Your task to perform on an android device: Search for vegetarian restaurants on Maps Image 0: 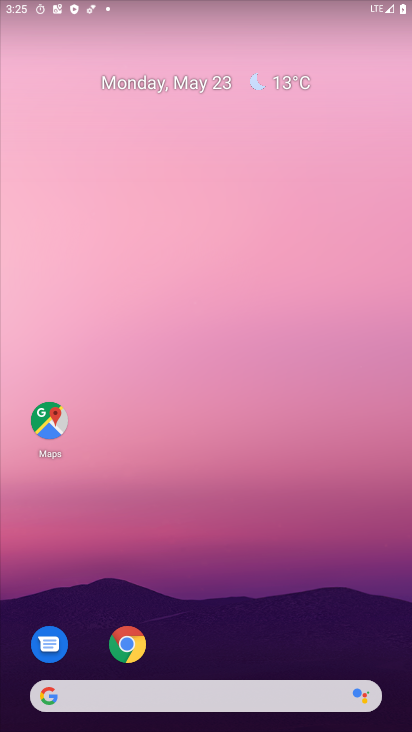
Step 0: drag from (210, 671) to (192, 96)
Your task to perform on an android device: Search for vegetarian restaurants on Maps Image 1: 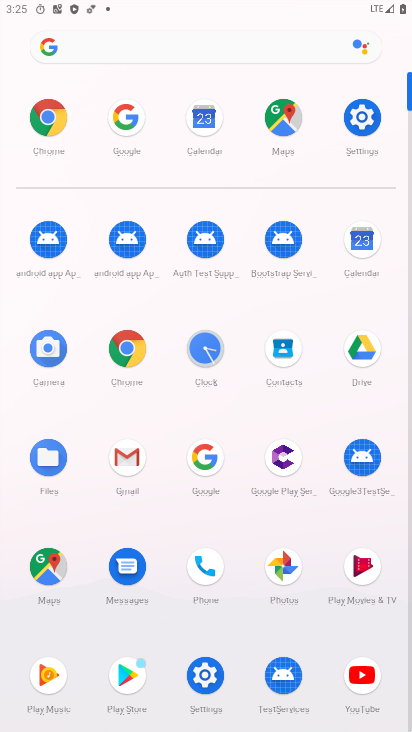
Step 1: click (61, 564)
Your task to perform on an android device: Search for vegetarian restaurants on Maps Image 2: 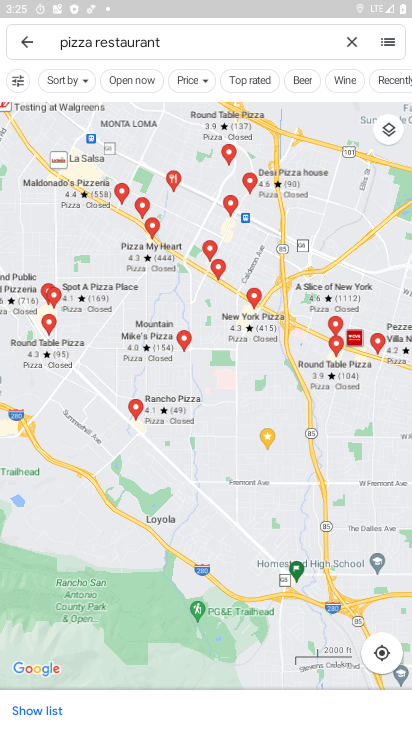
Step 2: click (353, 43)
Your task to perform on an android device: Search for vegetarian restaurants on Maps Image 3: 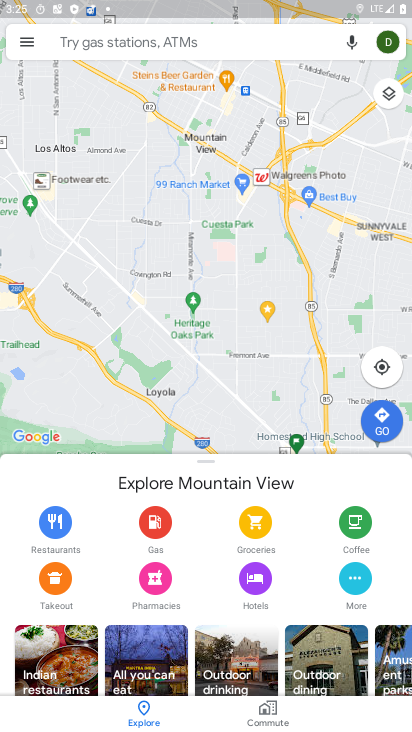
Step 3: click (231, 40)
Your task to perform on an android device: Search for vegetarian restaurants on Maps Image 4: 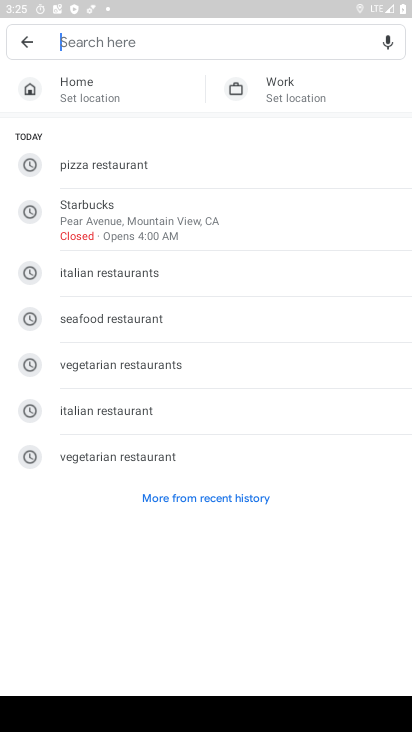
Step 4: click (139, 358)
Your task to perform on an android device: Search for vegetarian restaurants on Maps Image 5: 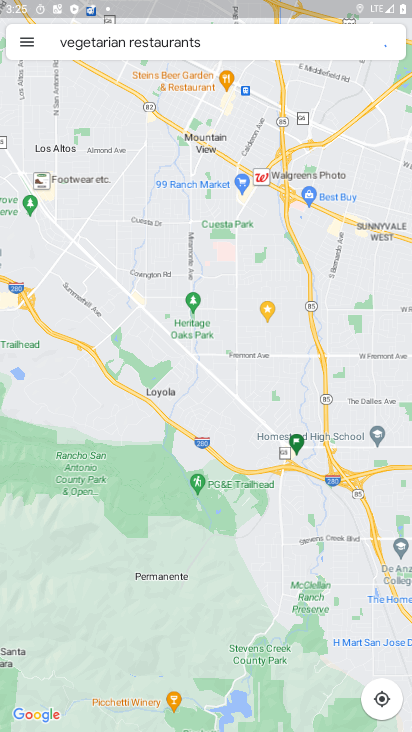
Step 5: task complete